Your task to perform on an android device: turn off notifications settings in the gmail app Image 0: 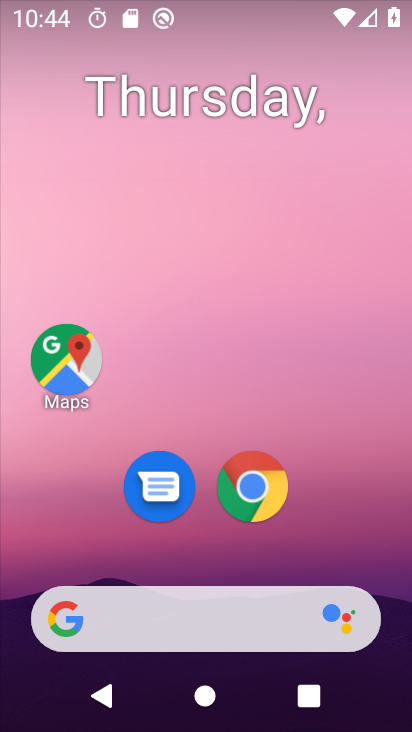
Step 0: drag from (370, 457) to (338, 177)
Your task to perform on an android device: turn off notifications settings in the gmail app Image 1: 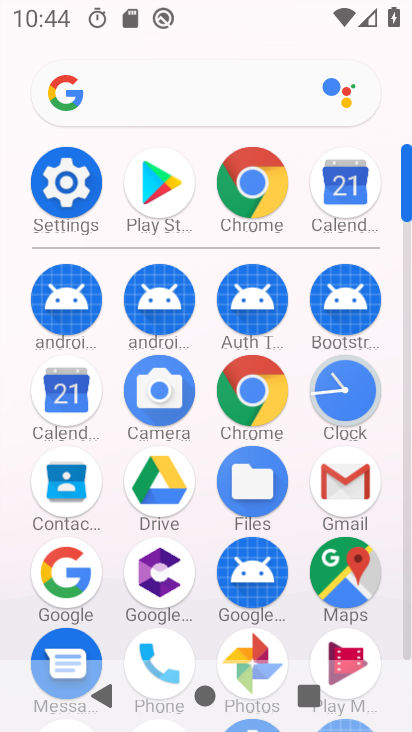
Step 1: click (355, 475)
Your task to perform on an android device: turn off notifications settings in the gmail app Image 2: 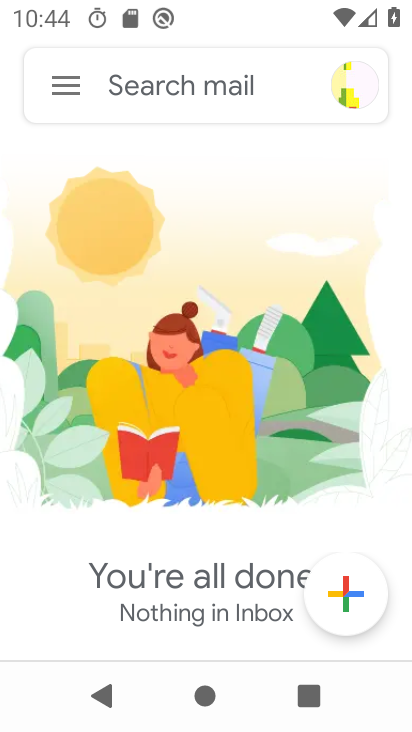
Step 2: click (52, 78)
Your task to perform on an android device: turn off notifications settings in the gmail app Image 3: 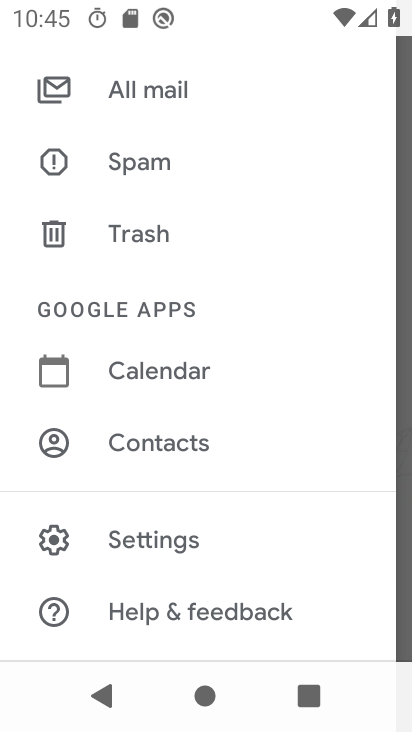
Step 3: click (162, 532)
Your task to perform on an android device: turn off notifications settings in the gmail app Image 4: 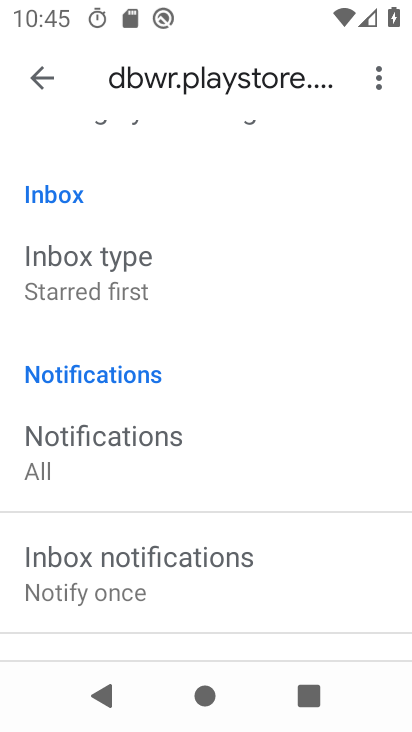
Step 4: click (51, 69)
Your task to perform on an android device: turn off notifications settings in the gmail app Image 5: 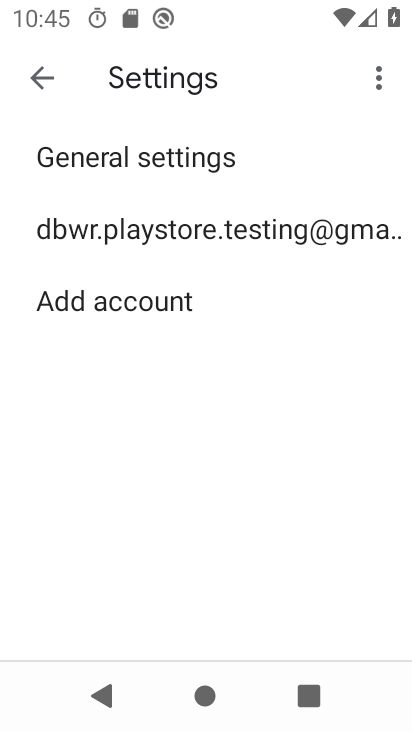
Step 5: click (75, 158)
Your task to perform on an android device: turn off notifications settings in the gmail app Image 6: 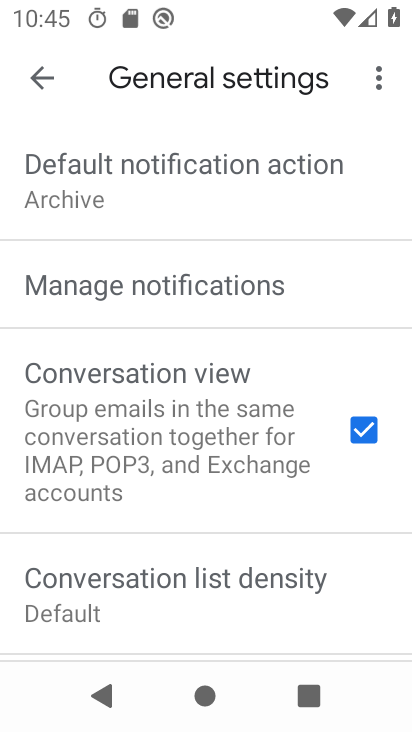
Step 6: click (165, 270)
Your task to perform on an android device: turn off notifications settings in the gmail app Image 7: 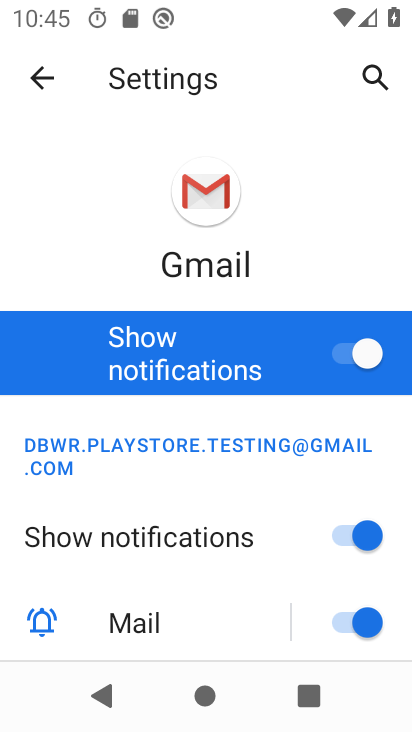
Step 7: click (338, 347)
Your task to perform on an android device: turn off notifications settings in the gmail app Image 8: 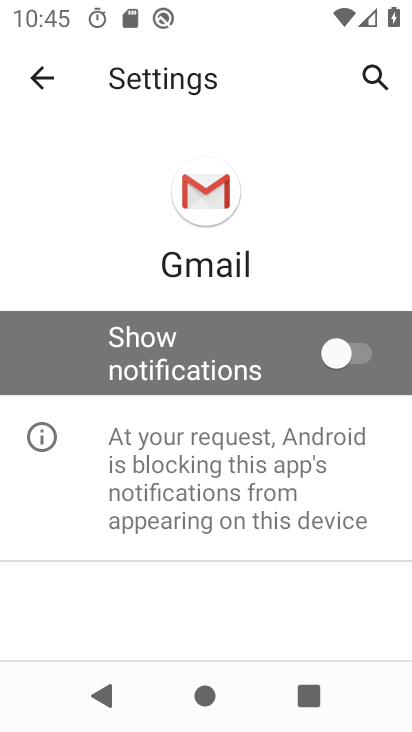
Step 8: task complete